Your task to perform on an android device: Clear the shopping cart on target. Add "lg ultragear" to the cart on target Image 0: 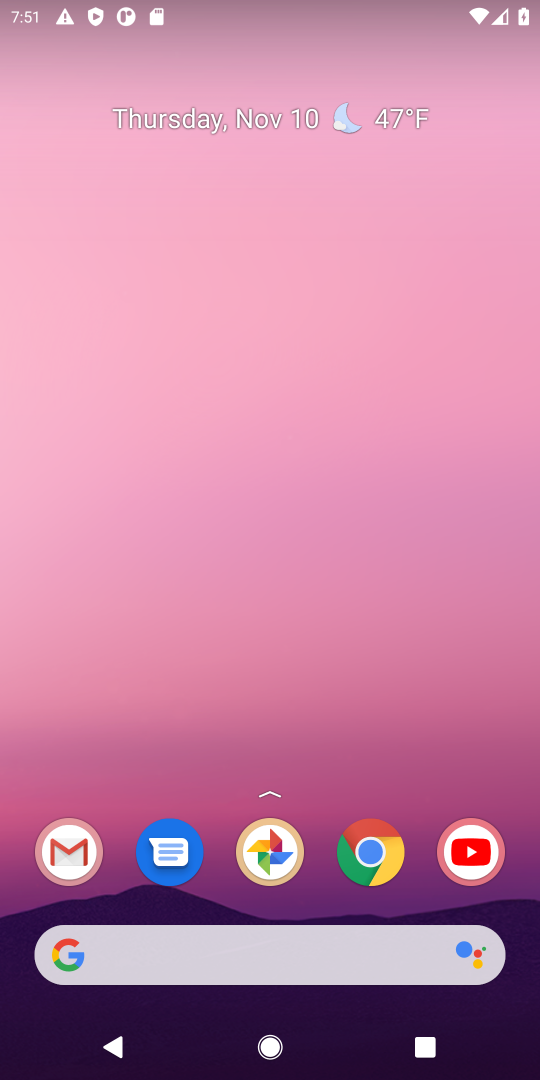
Step 0: click (377, 854)
Your task to perform on an android device: Clear the shopping cart on target. Add "lg ultragear" to the cart on target Image 1: 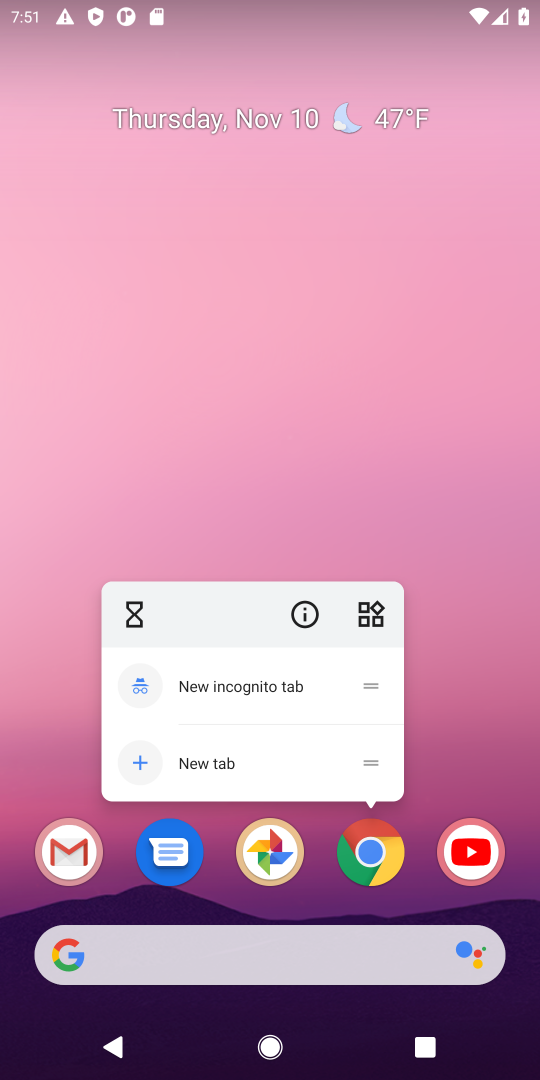
Step 1: click (355, 851)
Your task to perform on an android device: Clear the shopping cart on target. Add "lg ultragear" to the cart on target Image 2: 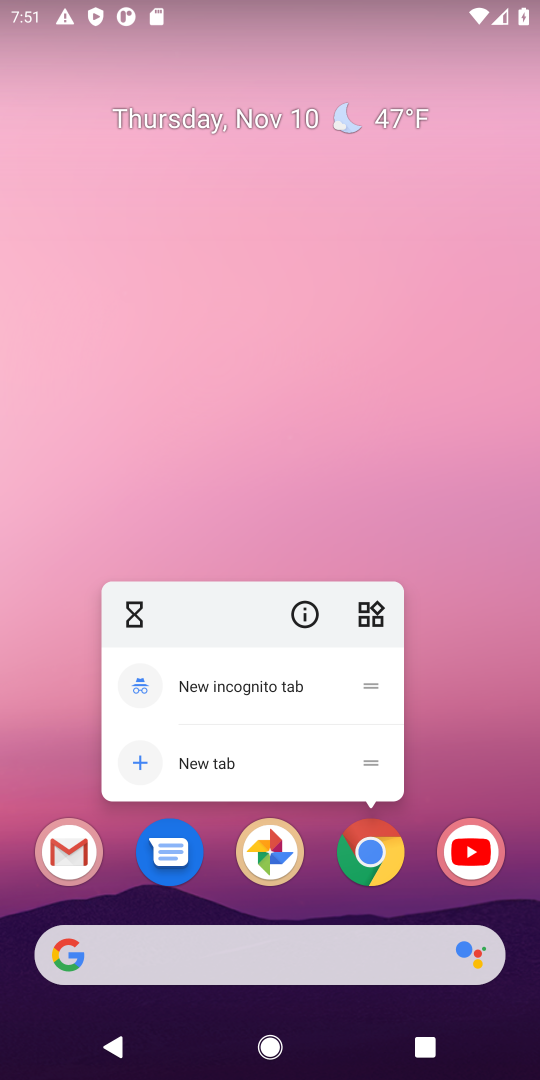
Step 2: click (375, 854)
Your task to perform on an android device: Clear the shopping cart on target. Add "lg ultragear" to the cart on target Image 3: 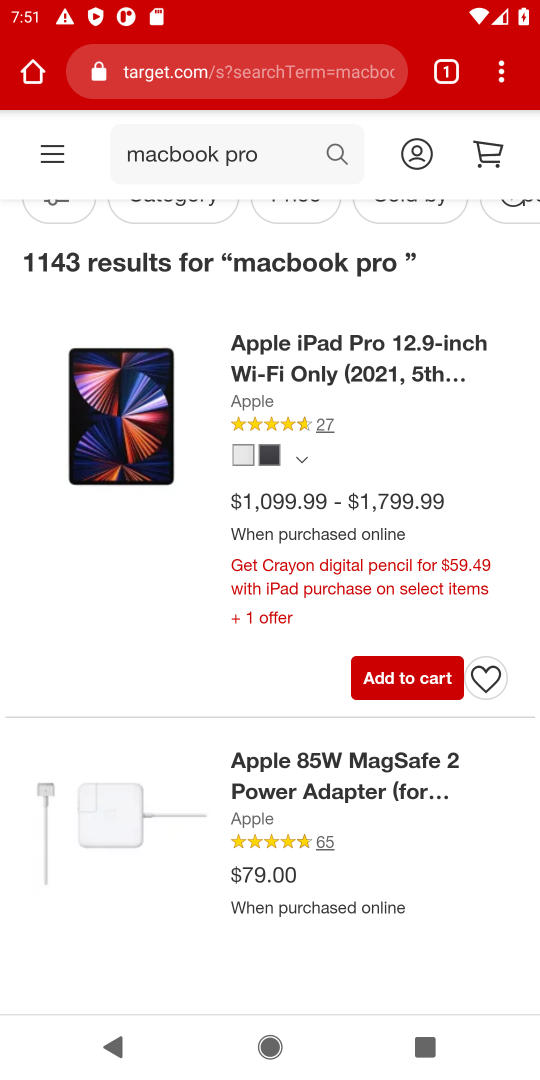
Step 3: click (274, 63)
Your task to perform on an android device: Clear the shopping cart on target. Add "lg ultragear" to the cart on target Image 4: 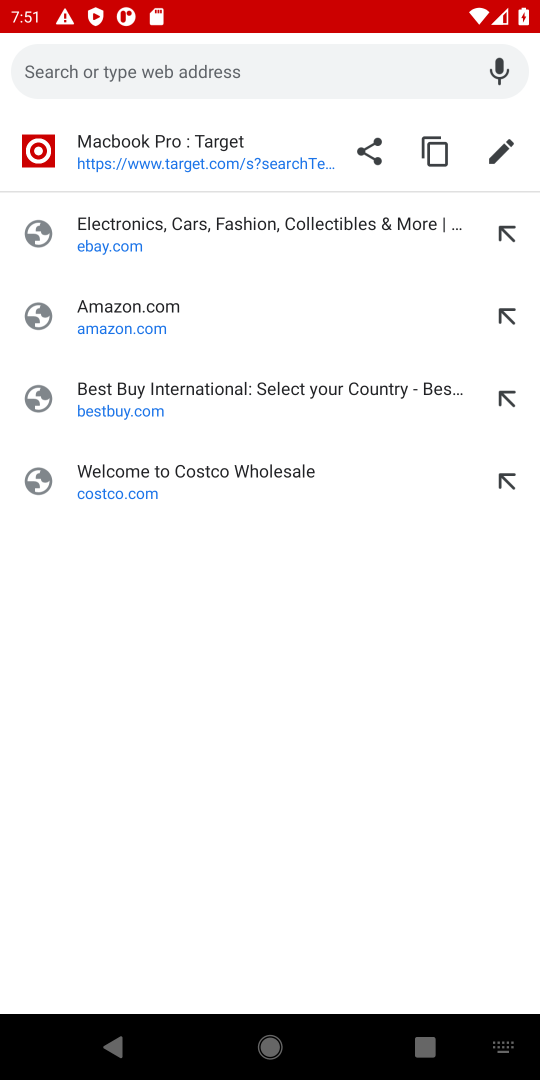
Step 4: type "target"
Your task to perform on an android device: Clear the shopping cart on target. Add "lg ultragear" to the cart on target Image 5: 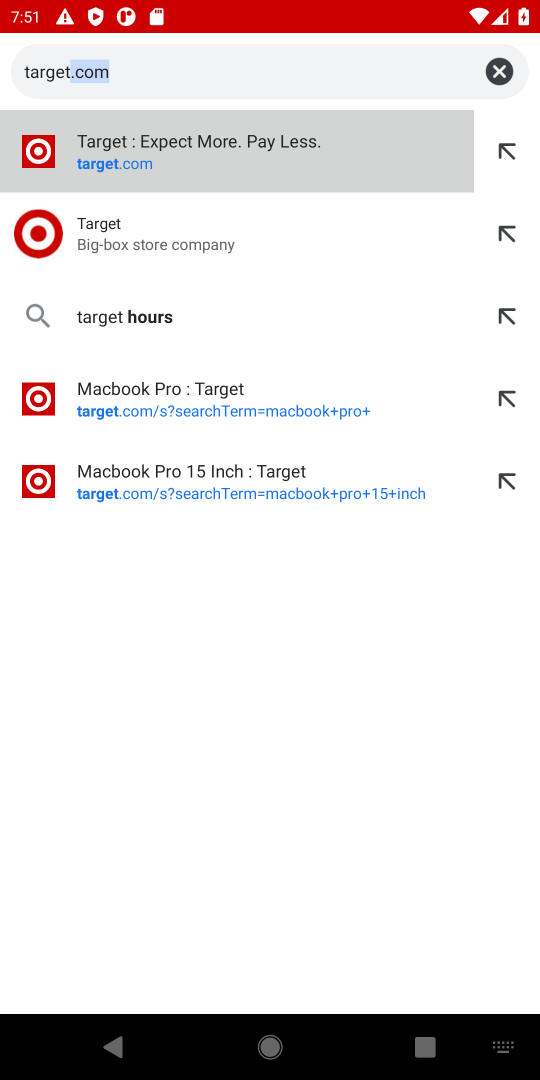
Step 5: press enter
Your task to perform on an android device: Clear the shopping cart on target. Add "lg ultragear" to the cart on target Image 6: 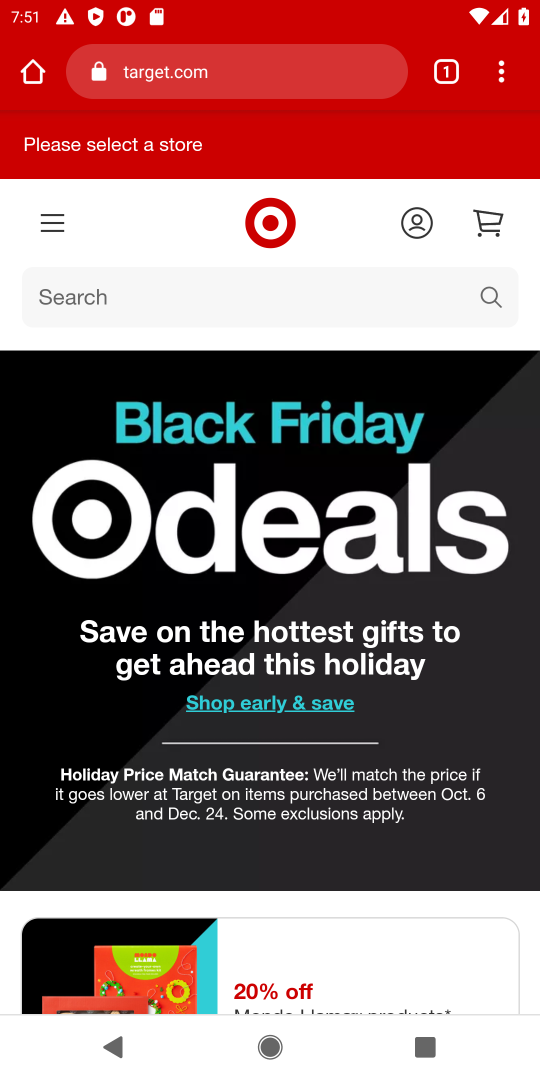
Step 6: click (141, 291)
Your task to perform on an android device: Clear the shopping cart on target. Add "lg ultragear" to the cart on target Image 7: 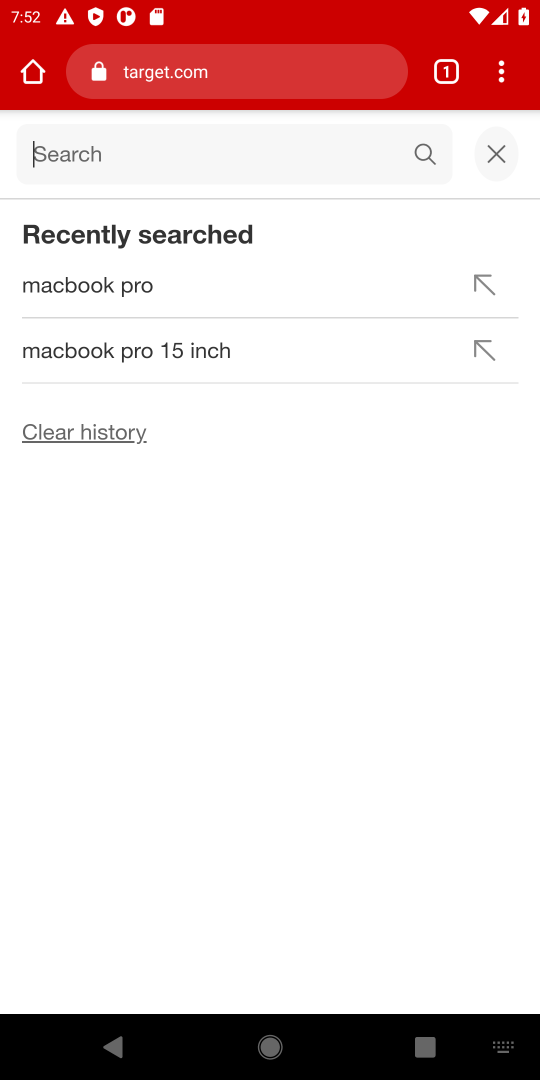
Step 7: type "lg ultragear"
Your task to perform on an android device: Clear the shopping cart on target. Add "lg ultragear" to the cart on target Image 8: 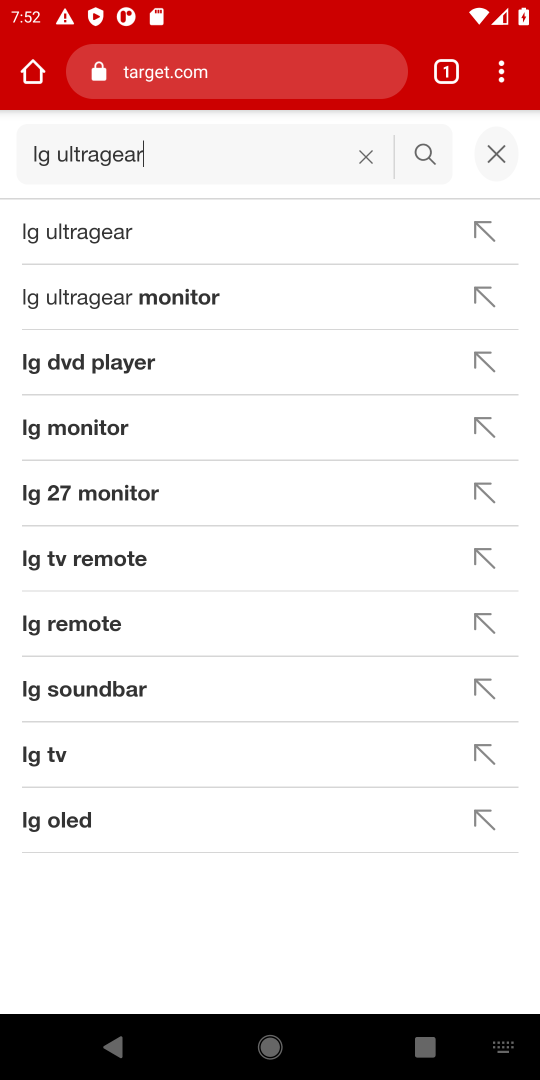
Step 8: press enter
Your task to perform on an android device: Clear the shopping cart on target. Add "lg ultragear" to the cart on target Image 9: 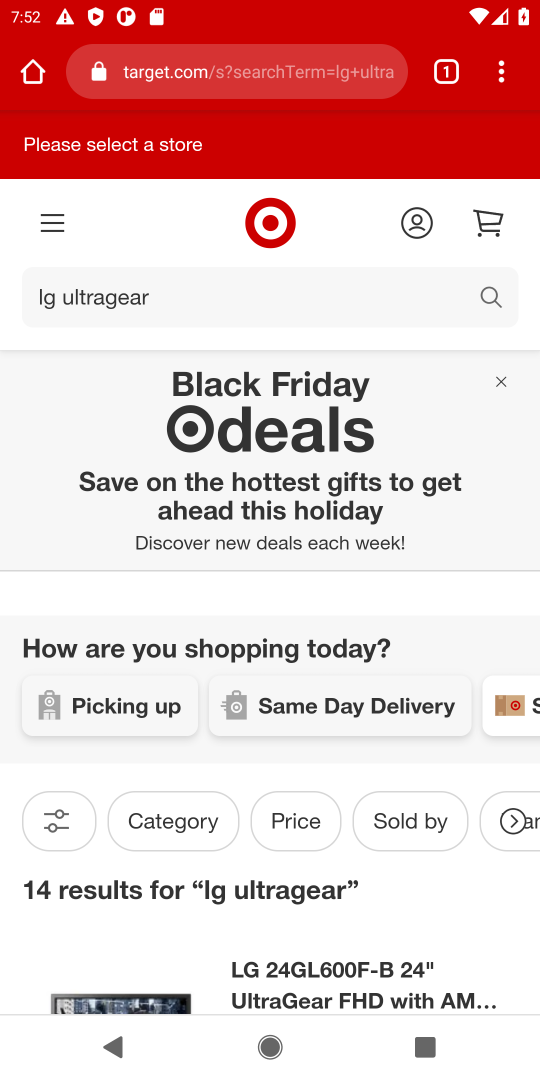
Step 9: drag from (238, 931) to (374, 601)
Your task to perform on an android device: Clear the shopping cart on target. Add "lg ultragear" to the cart on target Image 10: 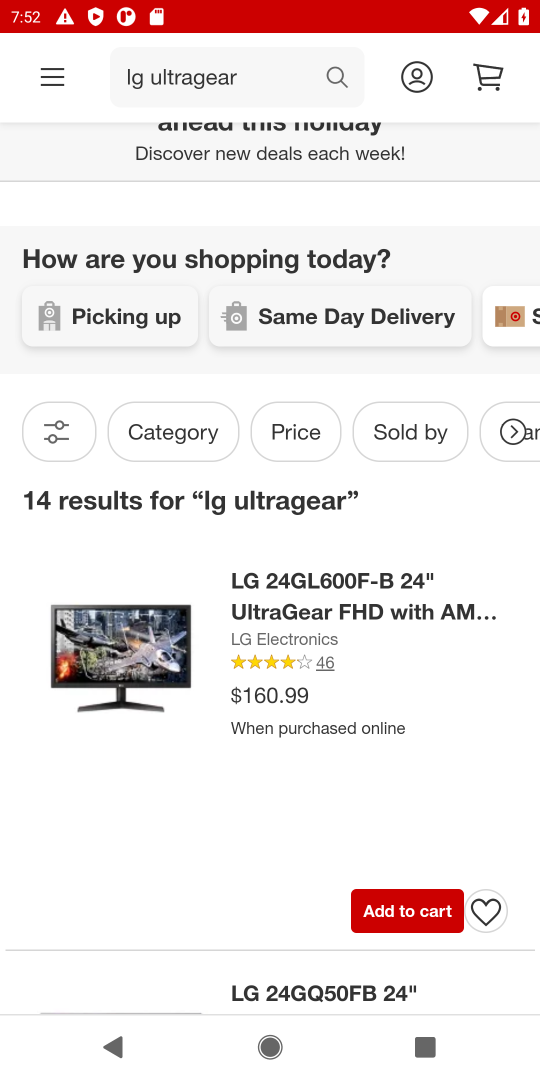
Step 10: drag from (246, 863) to (346, 702)
Your task to perform on an android device: Clear the shopping cart on target. Add "lg ultragear" to the cart on target Image 11: 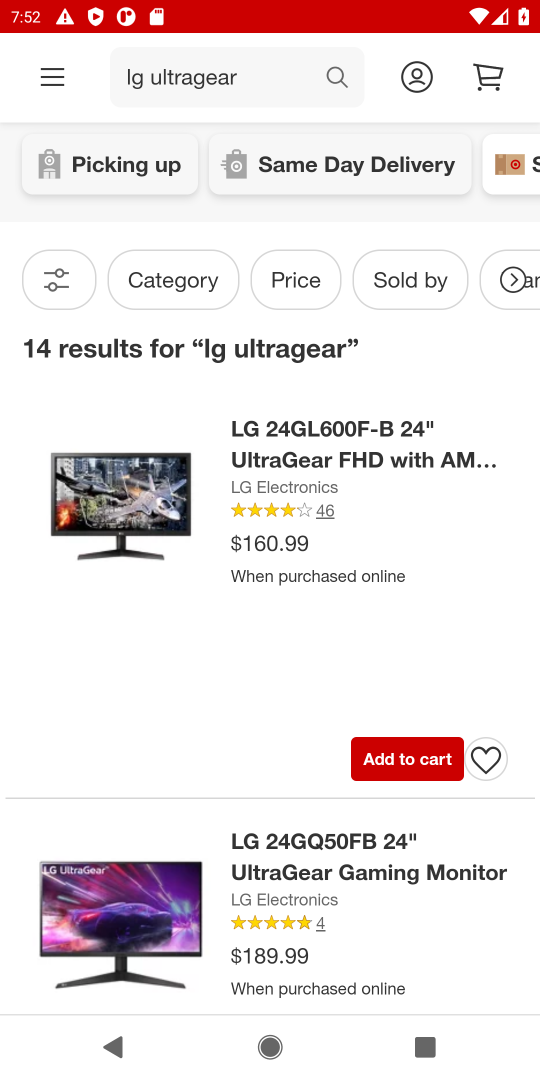
Step 11: click (296, 514)
Your task to perform on an android device: Clear the shopping cart on target. Add "lg ultragear" to the cart on target Image 12: 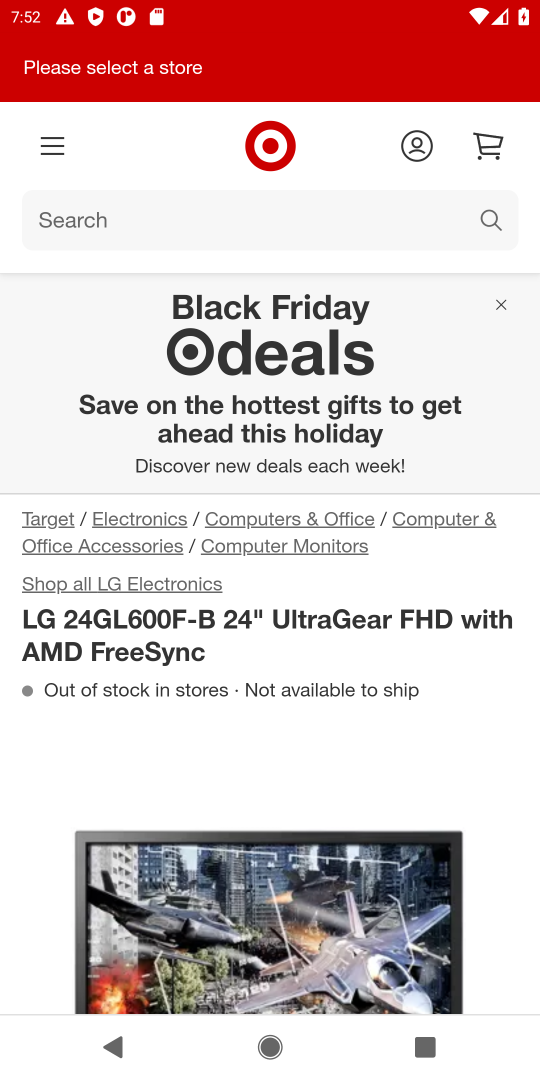
Step 12: drag from (221, 949) to (453, 289)
Your task to perform on an android device: Clear the shopping cart on target. Add "lg ultragear" to the cart on target Image 13: 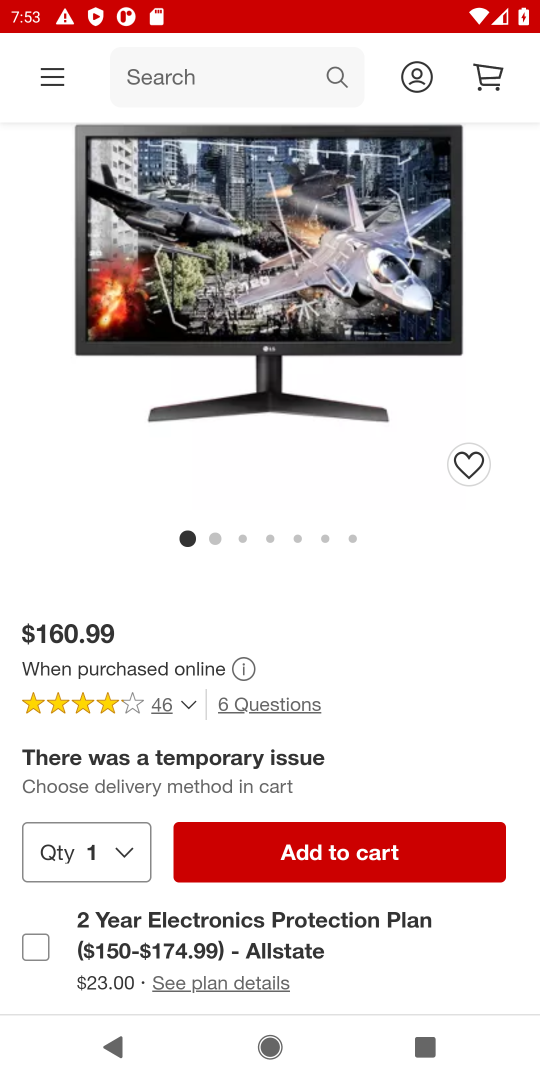
Step 13: click (352, 842)
Your task to perform on an android device: Clear the shopping cart on target. Add "lg ultragear" to the cart on target Image 14: 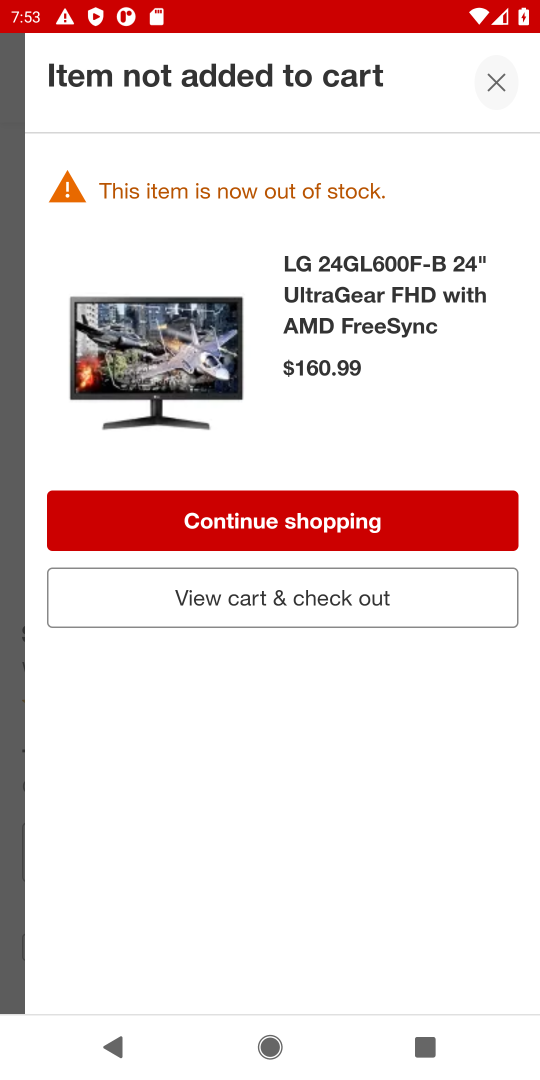
Step 14: click (354, 586)
Your task to perform on an android device: Clear the shopping cart on target. Add "lg ultragear" to the cart on target Image 15: 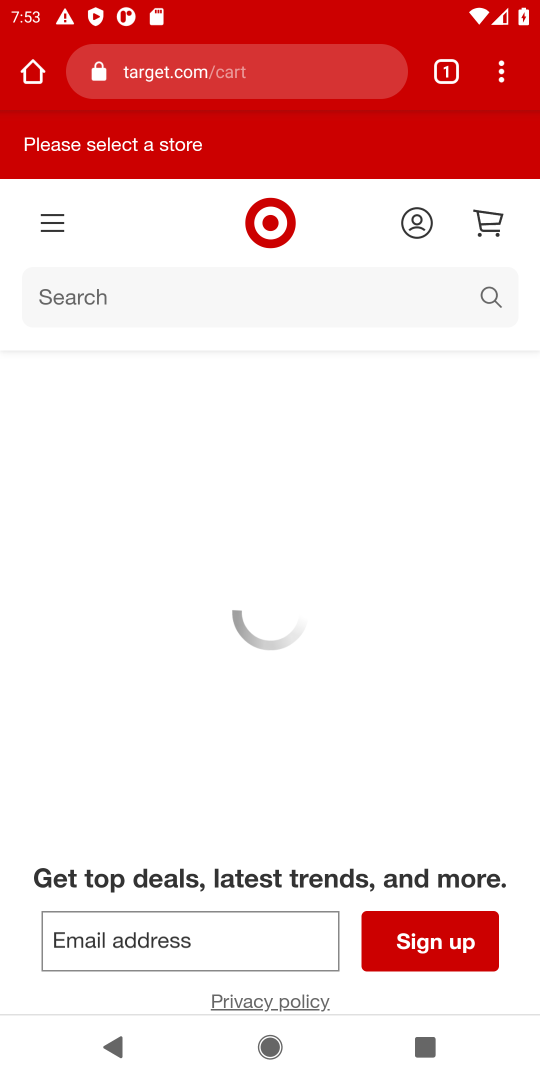
Step 15: task complete